Your task to perform on an android device: turn on improve location accuracy Image 0: 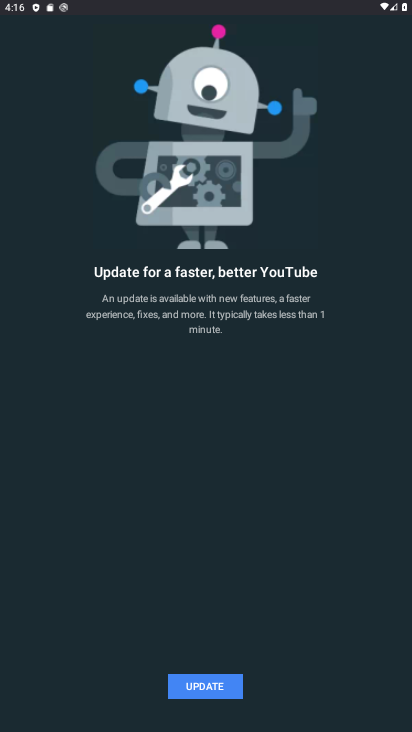
Step 0: press home button
Your task to perform on an android device: turn on improve location accuracy Image 1: 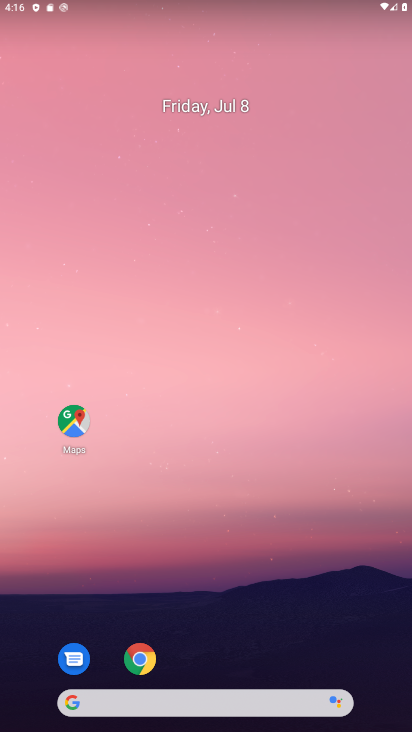
Step 1: drag from (316, 701) to (247, 162)
Your task to perform on an android device: turn on improve location accuracy Image 2: 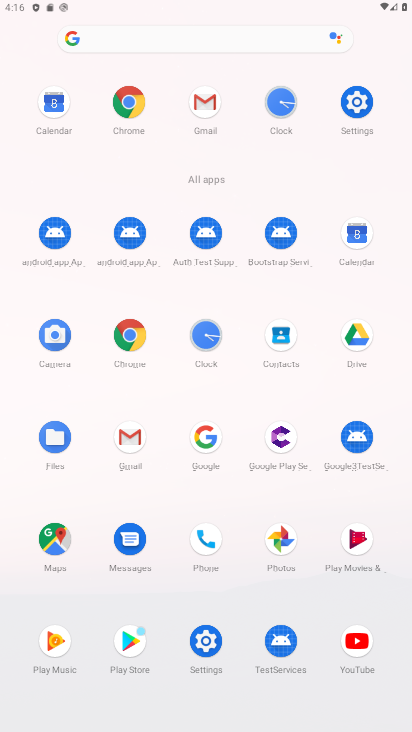
Step 2: click (197, 646)
Your task to perform on an android device: turn on improve location accuracy Image 3: 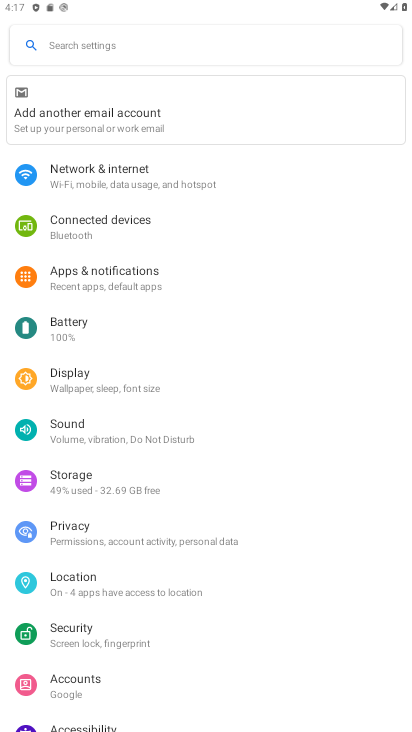
Step 3: click (57, 591)
Your task to perform on an android device: turn on improve location accuracy Image 4: 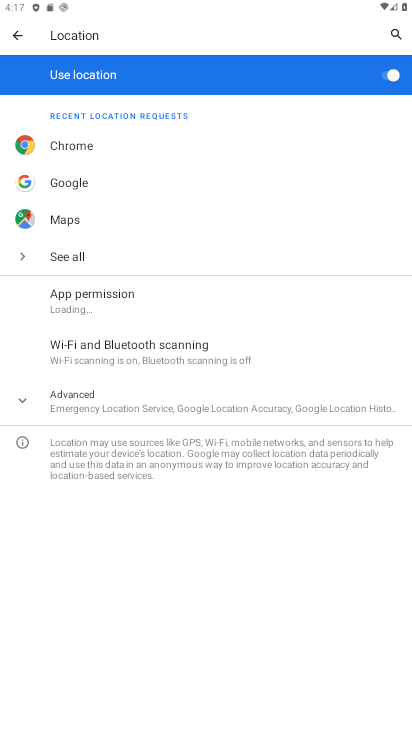
Step 4: click (94, 393)
Your task to perform on an android device: turn on improve location accuracy Image 5: 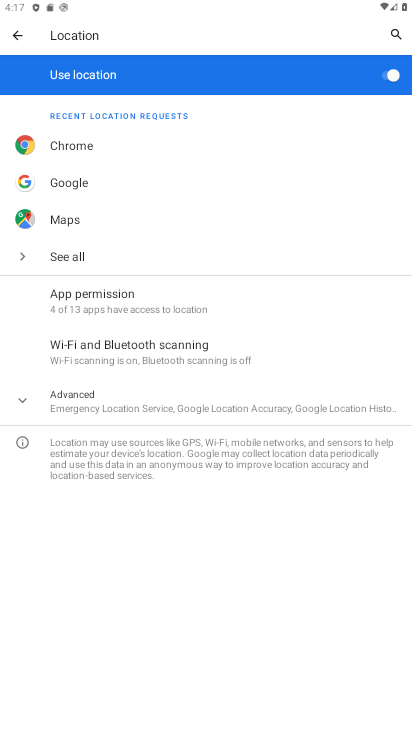
Step 5: click (94, 401)
Your task to perform on an android device: turn on improve location accuracy Image 6: 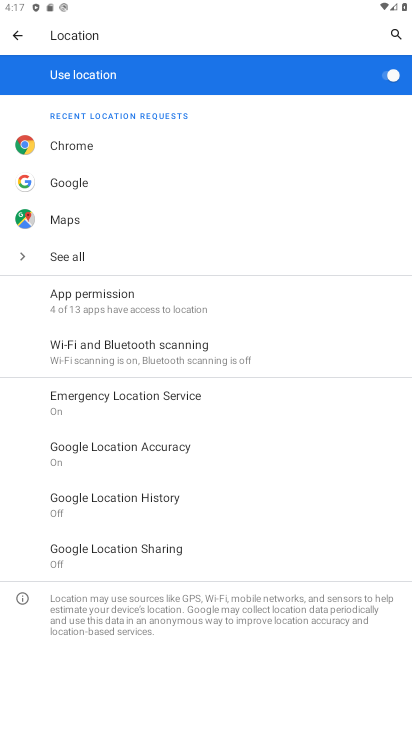
Step 6: click (94, 436)
Your task to perform on an android device: turn on improve location accuracy Image 7: 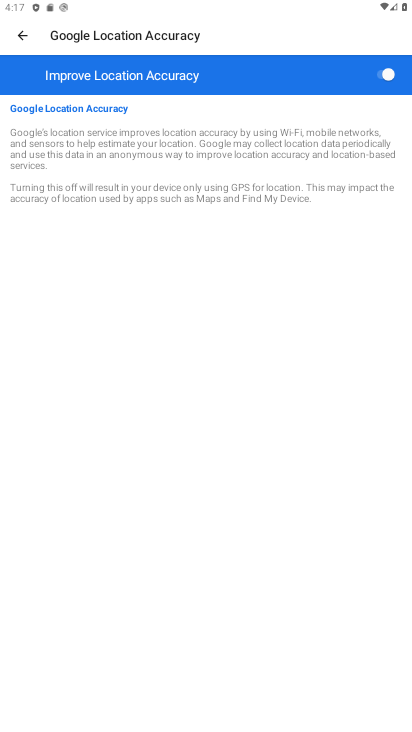
Step 7: task complete